Your task to perform on an android device: turn off translation in the chrome app Image 0: 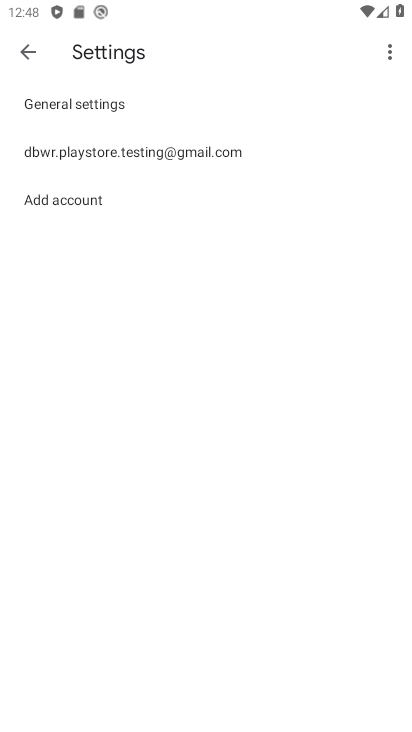
Step 0: press back button
Your task to perform on an android device: turn off translation in the chrome app Image 1: 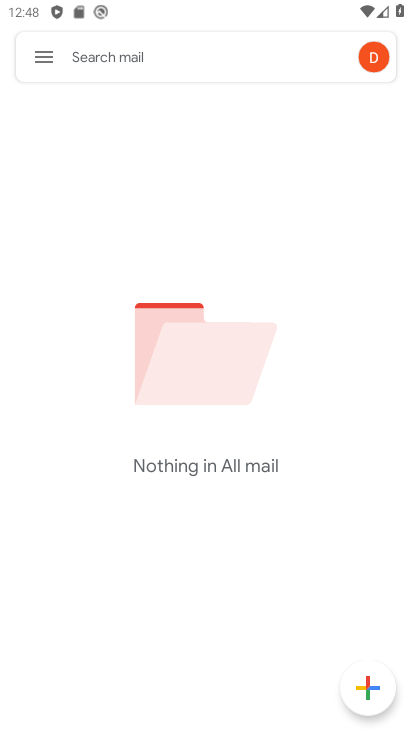
Step 1: press back button
Your task to perform on an android device: turn off translation in the chrome app Image 2: 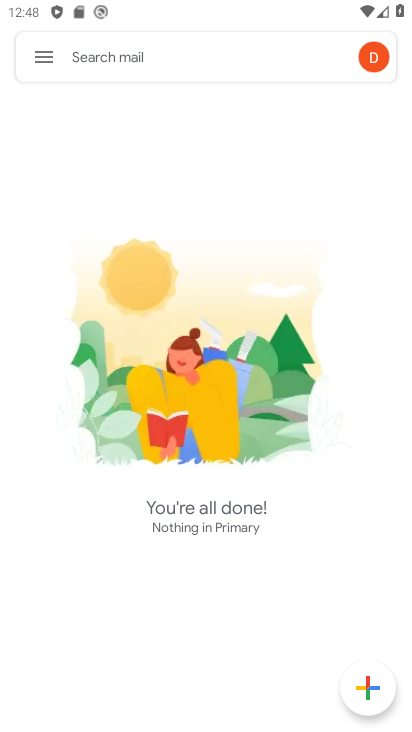
Step 2: press back button
Your task to perform on an android device: turn off translation in the chrome app Image 3: 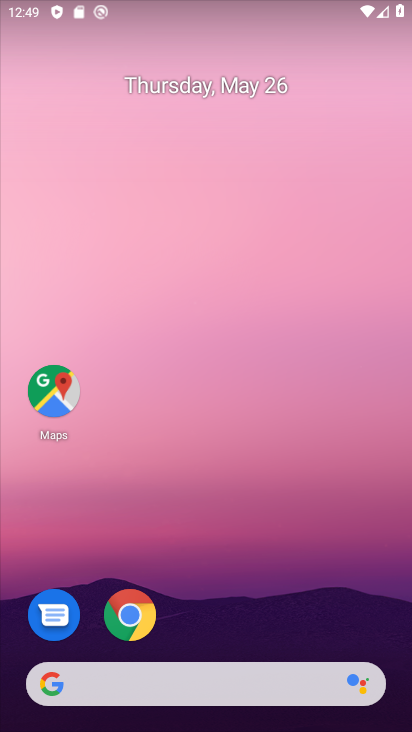
Step 3: click (122, 600)
Your task to perform on an android device: turn off translation in the chrome app Image 4: 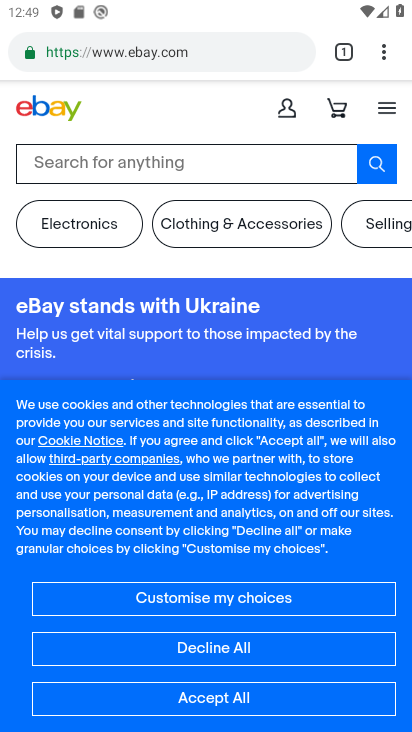
Step 4: drag from (389, 54) to (184, 633)
Your task to perform on an android device: turn off translation in the chrome app Image 5: 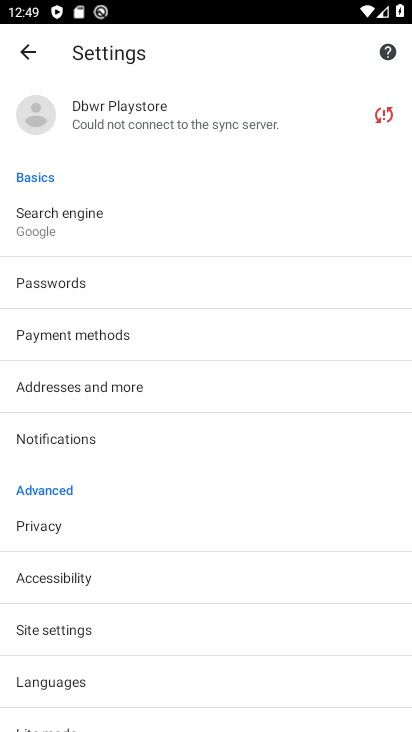
Step 5: click (66, 676)
Your task to perform on an android device: turn off translation in the chrome app Image 6: 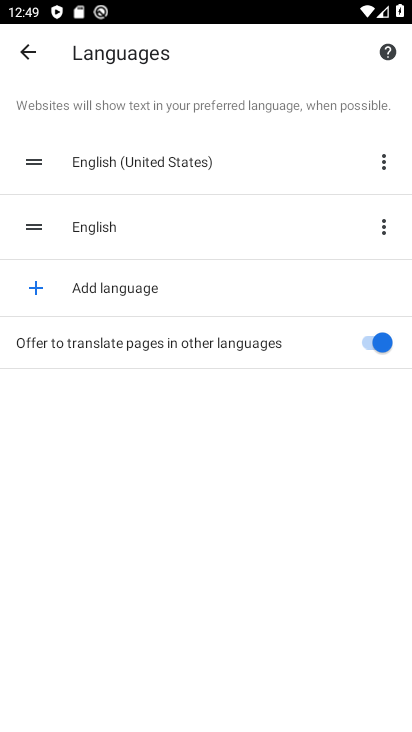
Step 6: click (381, 341)
Your task to perform on an android device: turn off translation in the chrome app Image 7: 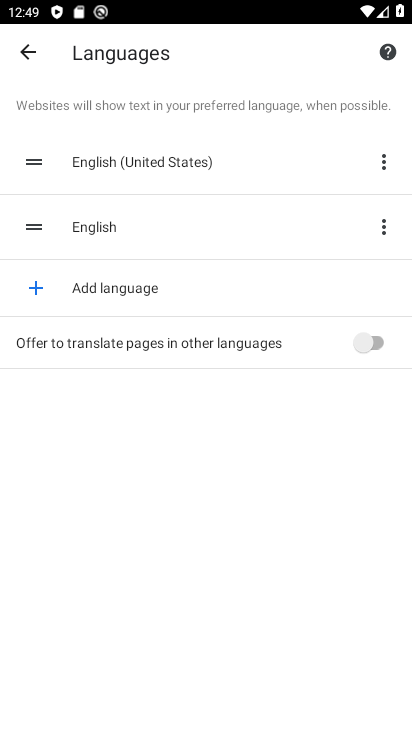
Step 7: task complete